Your task to perform on an android device: clear history in the chrome app Image 0: 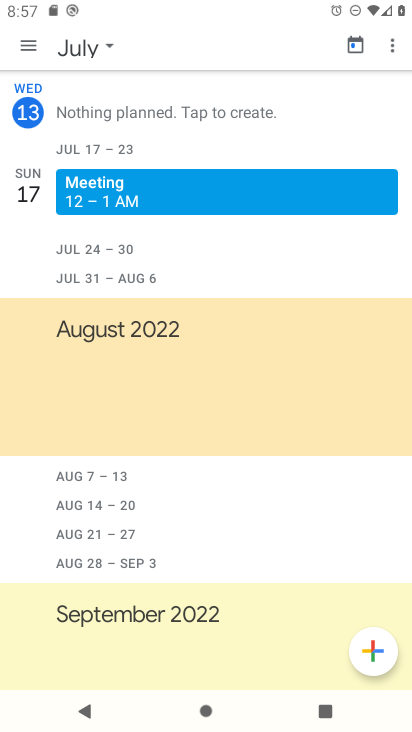
Step 0: press home button
Your task to perform on an android device: clear history in the chrome app Image 1: 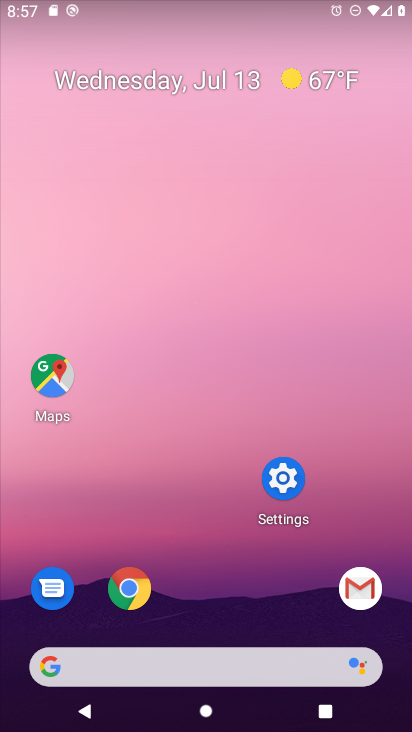
Step 1: click (130, 591)
Your task to perform on an android device: clear history in the chrome app Image 2: 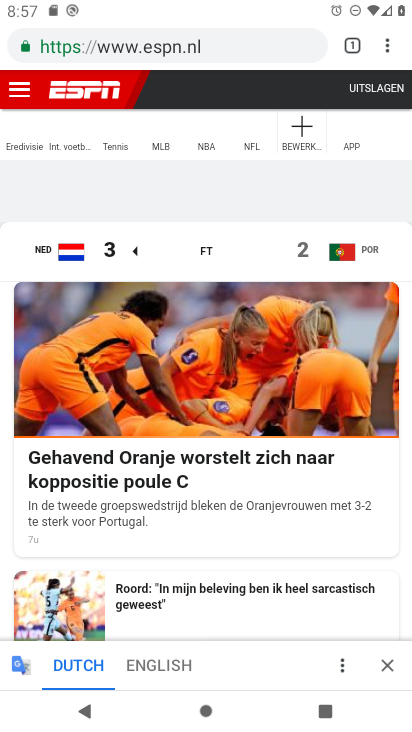
Step 2: click (387, 52)
Your task to perform on an android device: clear history in the chrome app Image 3: 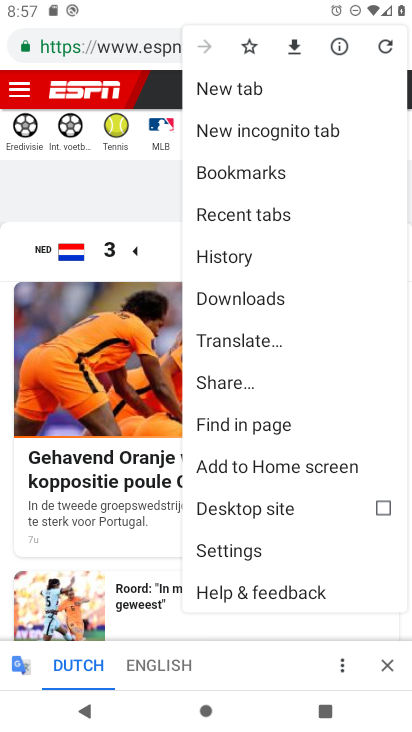
Step 3: click (237, 257)
Your task to perform on an android device: clear history in the chrome app Image 4: 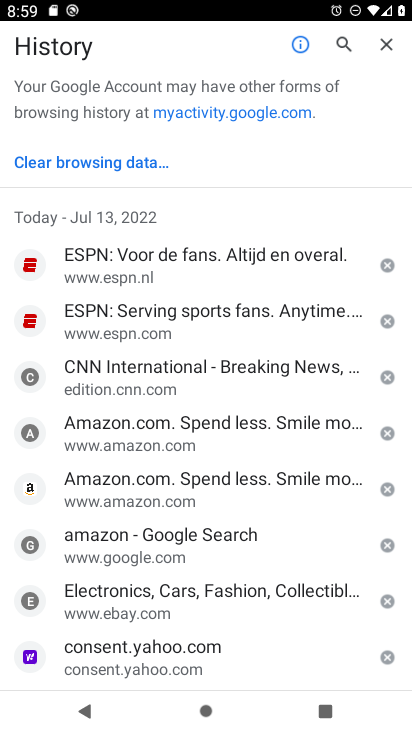
Step 4: click (77, 158)
Your task to perform on an android device: clear history in the chrome app Image 5: 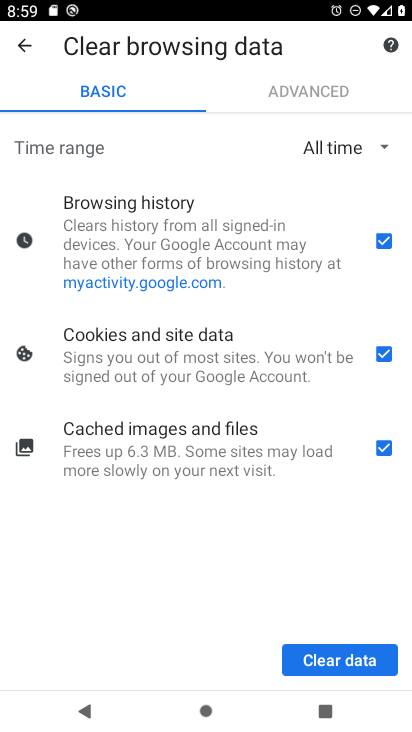
Step 5: click (359, 660)
Your task to perform on an android device: clear history in the chrome app Image 6: 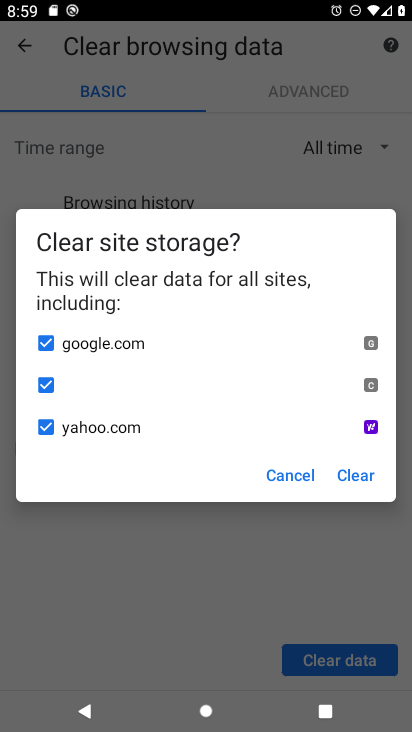
Step 6: click (371, 473)
Your task to perform on an android device: clear history in the chrome app Image 7: 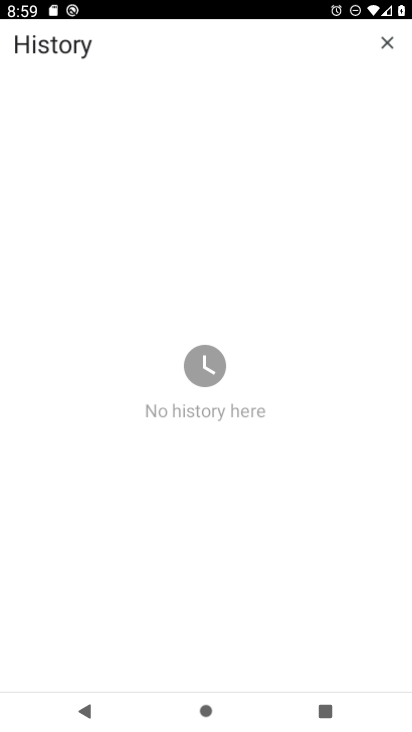
Step 7: task complete